Your task to perform on an android device: Open Amazon Image 0: 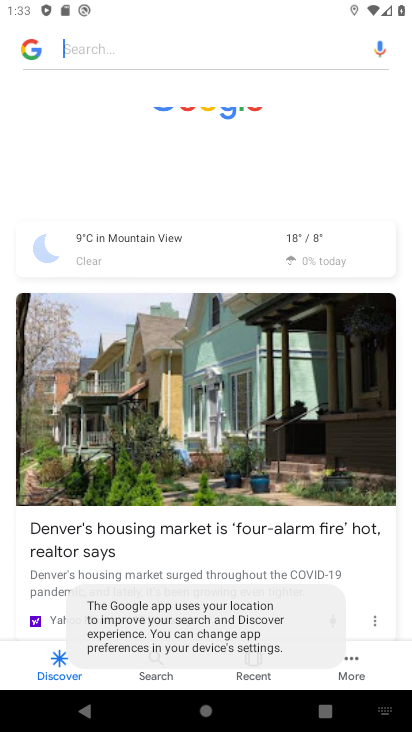
Step 0: press home button
Your task to perform on an android device: Open Amazon Image 1: 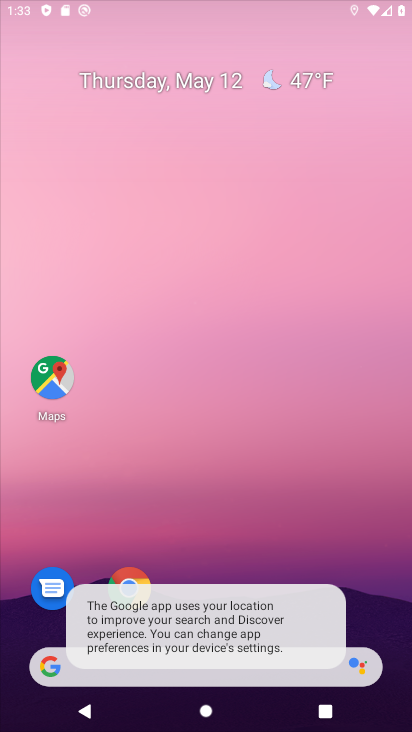
Step 1: drag from (390, 600) to (366, 181)
Your task to perform on an android device: Open Amazon Image 2: 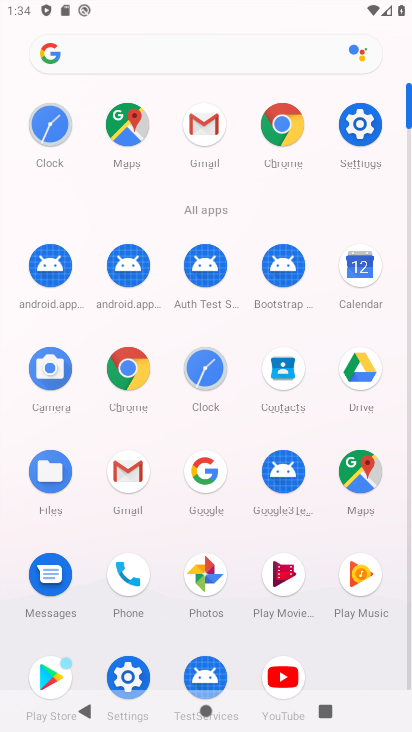
Step 2: click (127, 380)
Your task to perform on an android device: Open Amazon Image 3: 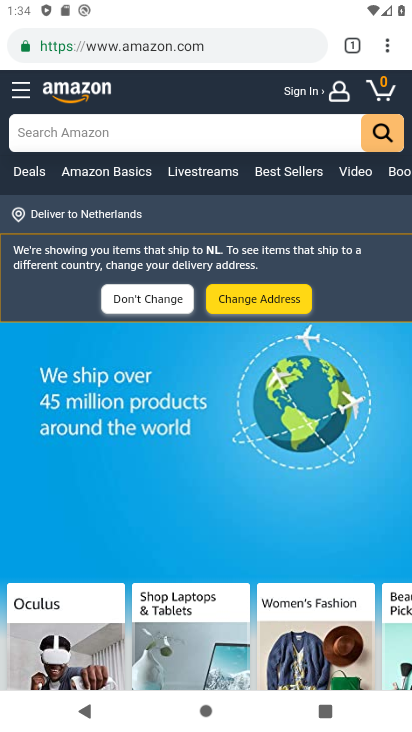
Step 3: task complete